Your task to perform on an android device: turn on notifications settings in the gmail app Image 0: 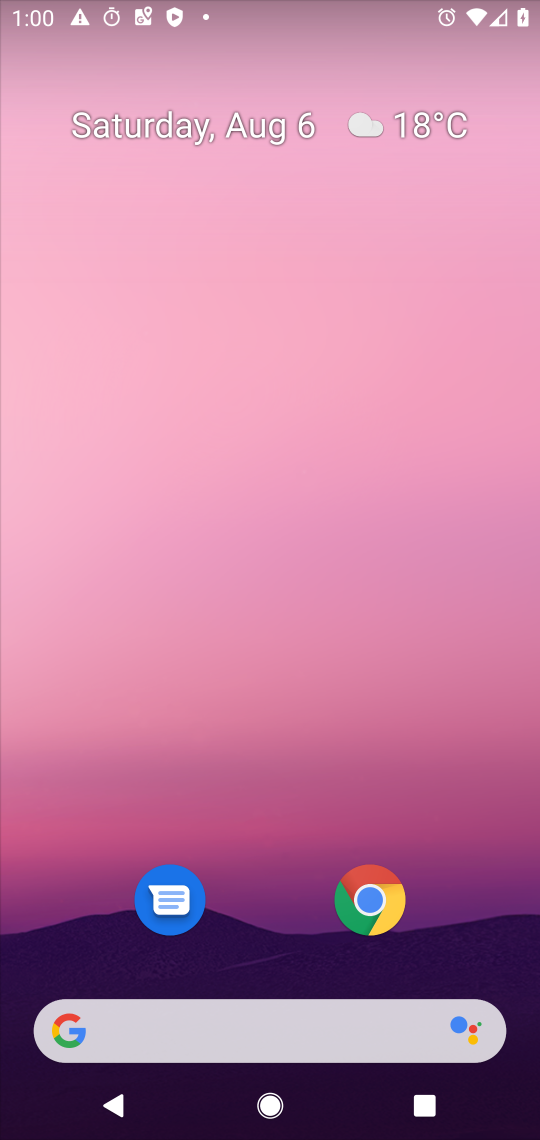
Step 0: press home button
Your task to perform on an android device: turn on notifications settings in the gmail app Image 1: 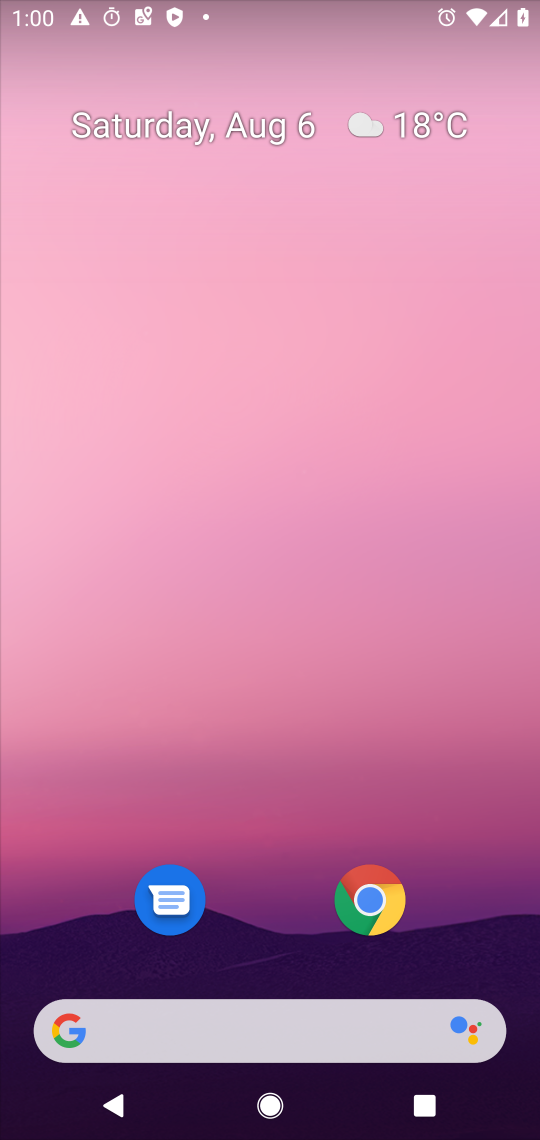
Step 1: drag from (255, 15) to (393, 977)
Your task to perform on an android device: turn on notifications settings in the gmail app Image 2: 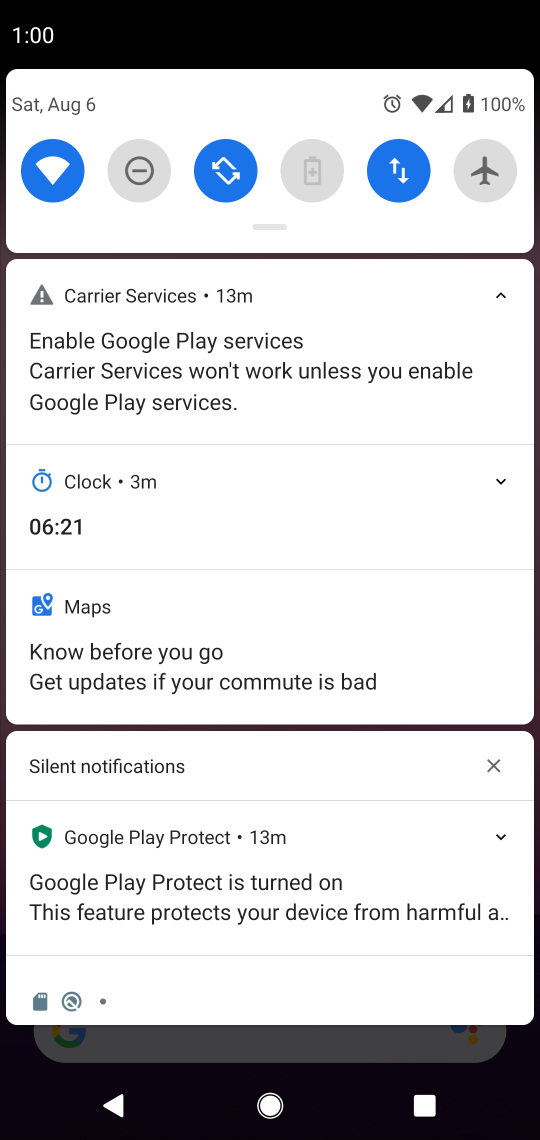
Step 2: press home button
Your task to perform on an android device: turn on notifications settings in the gmail app Image 3: 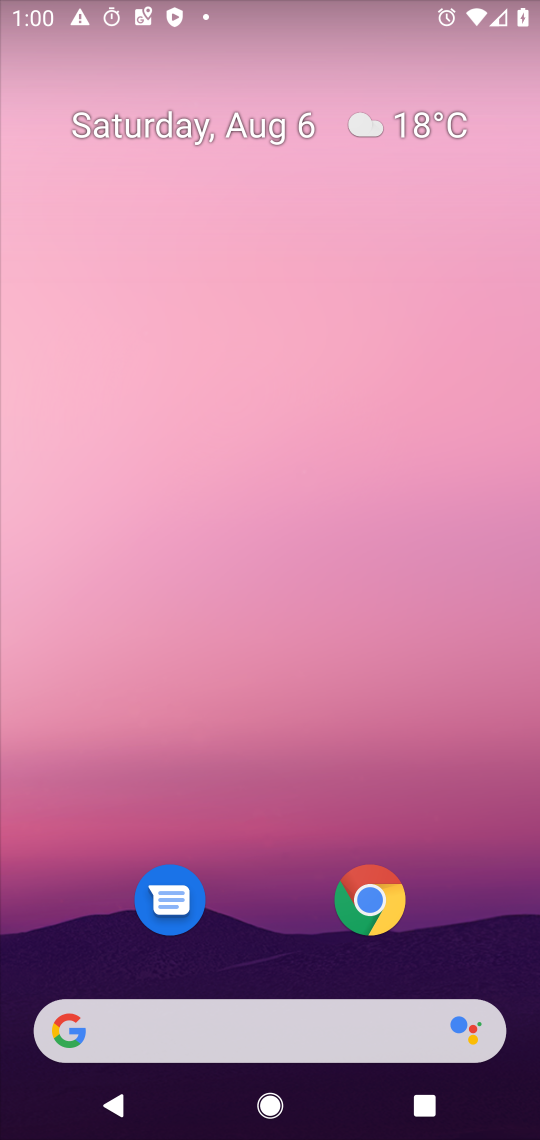
Step 3: drag from (286, 910) to (302, 199)
Your task to perform on an android device: turn on notifications settings in the gmail app Image 4: 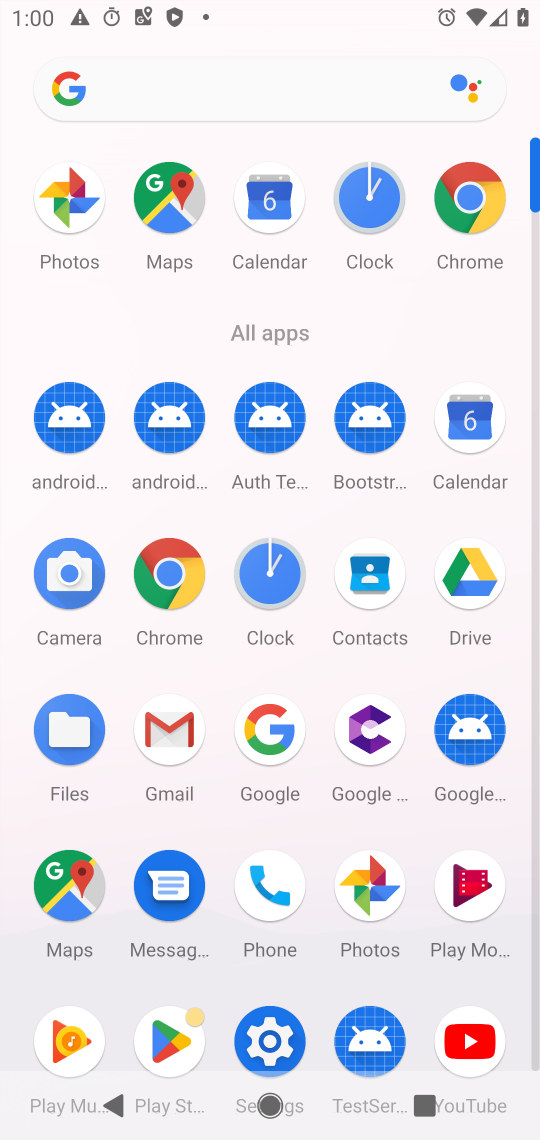
Step 4: click (183, 731)
Your task to perform on an android device: turn on notifications settings in the gmail app Image 5: 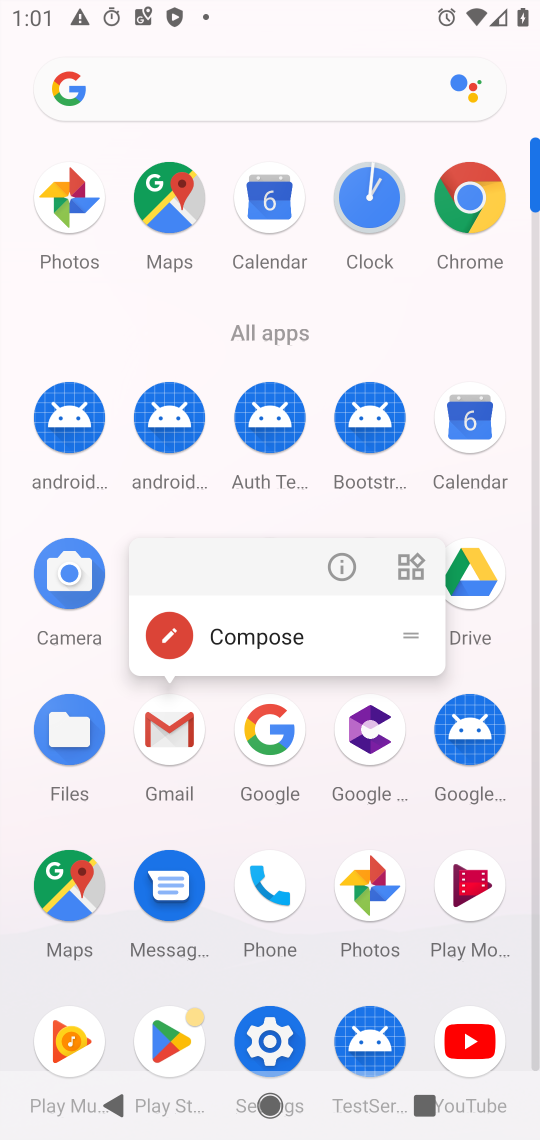
Step 5: click (329, 573)
Your task to perform on an android device: turn on notifications settings in the gmail app Image 6: 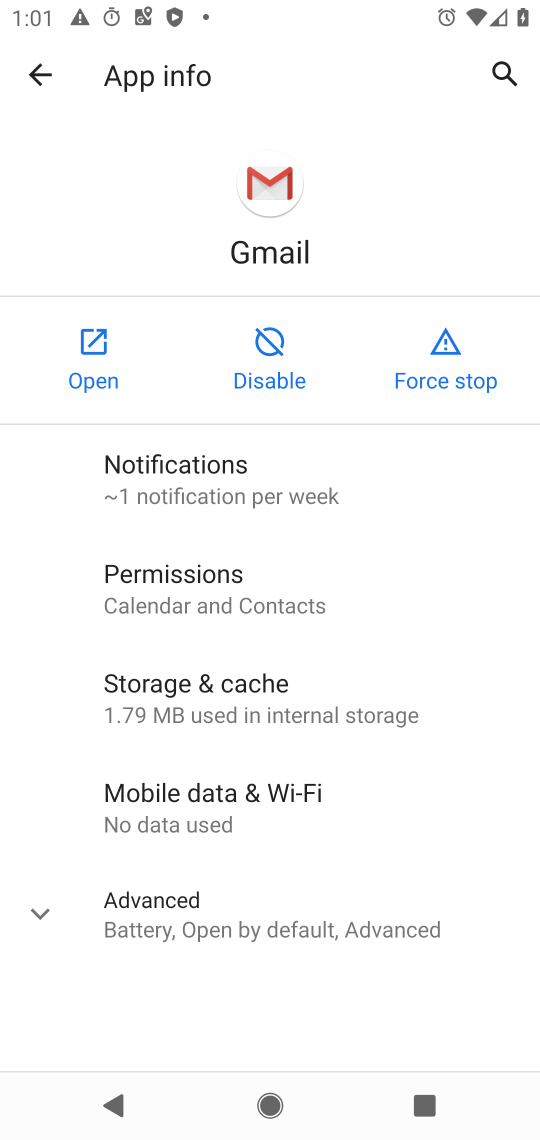
Step 6: click (227, 504)
Your task to perform on an android device: turn on notifications settings in the gmail app Image 7: 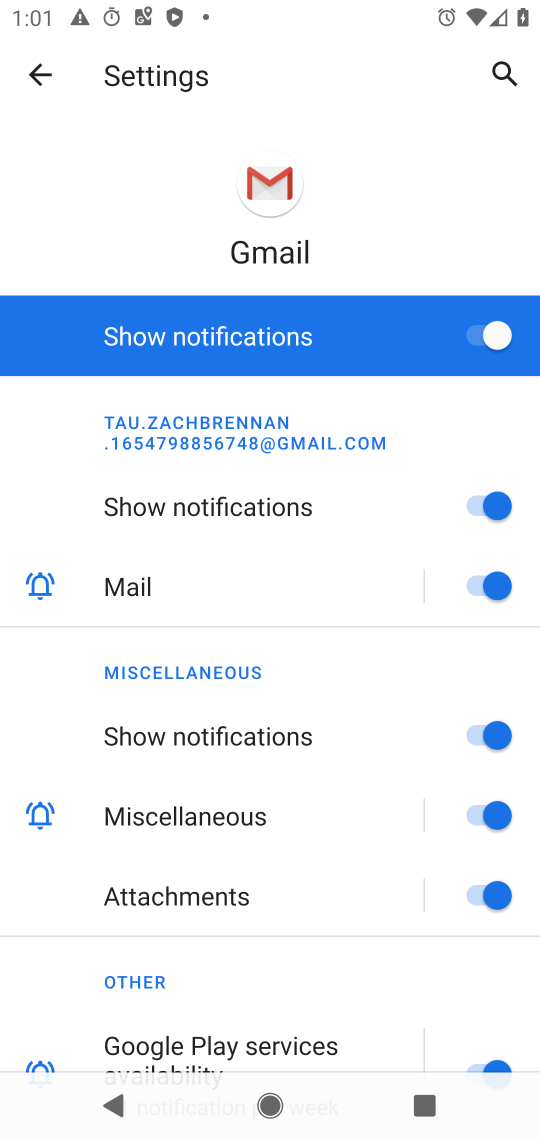
Step 7: task complete